Your task to perform on an android device: Open battery settings Image 0: 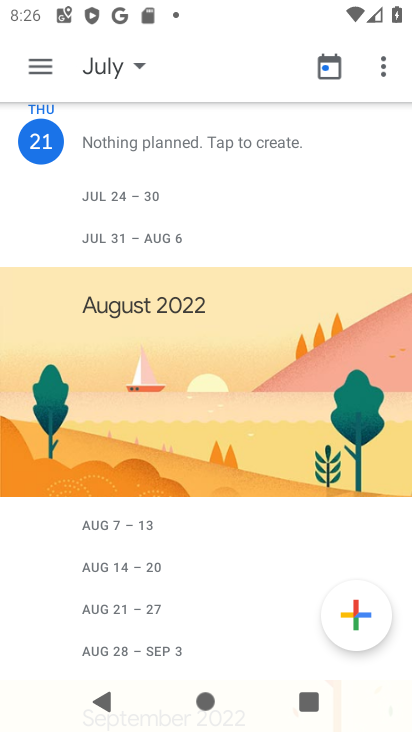
Step 0: press home button
Your task to perform on an android device: Open battery settings Image 1: 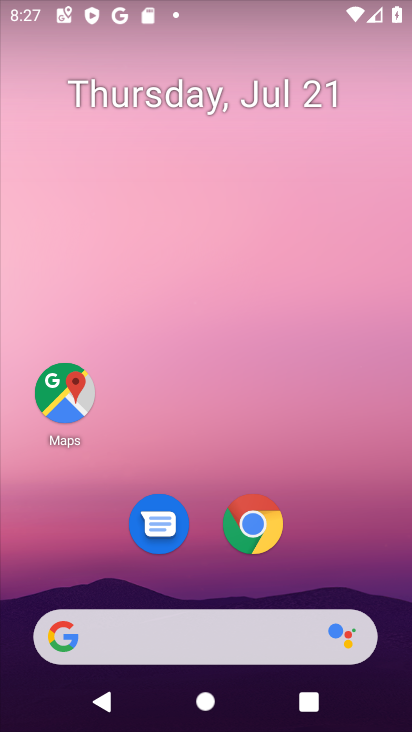
Step 1: drag from (176, 646) to (257, 167)
Your task to perform on an android device: Open battery settings Image 2: 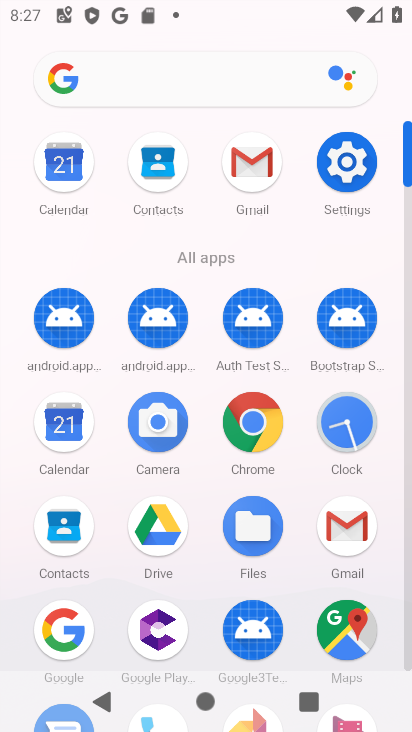
Step 2: click (351, 174)
Your task to perform on an android device: Open battery settings Image 3: 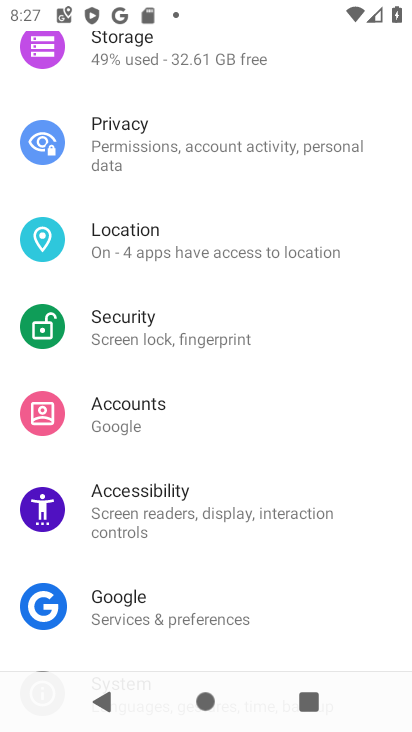
Step 3: drag from (334, 99) to (299, 576)
Your task to perform on an android device: Open battery settings Image 4: 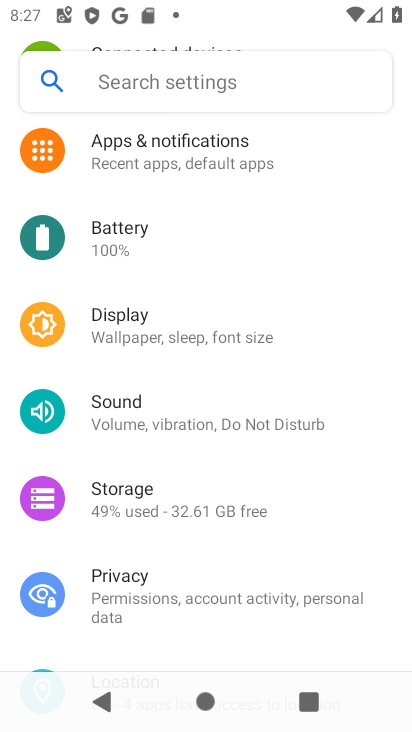
Step 4: click (130, 240)
Your task to perform on an android device: Open battery settings Image 5: 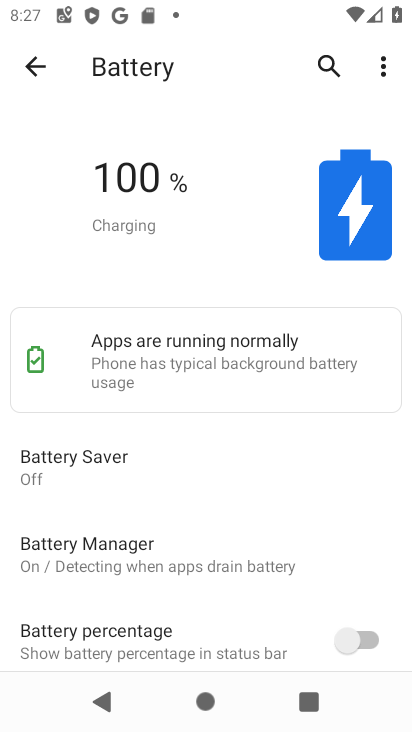
Step 5: task complete